Your task to perform on an android device: toggle notification dots Image 0: 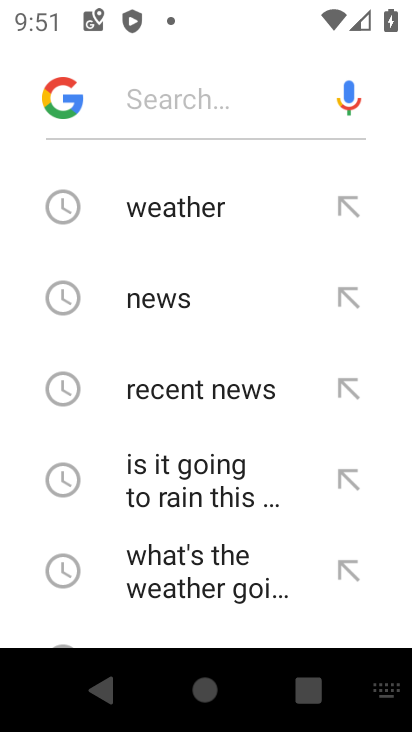
Step 0: press back button
Your task to perform on an android device: toggle notification dots Image 1: 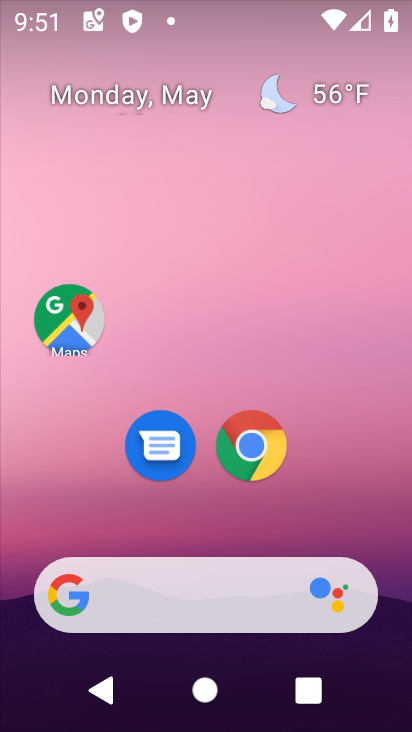
Step 1: drag from (70, 549) to (175, 85)
Your task to perform on an android device: toggle notification dots Image 2: 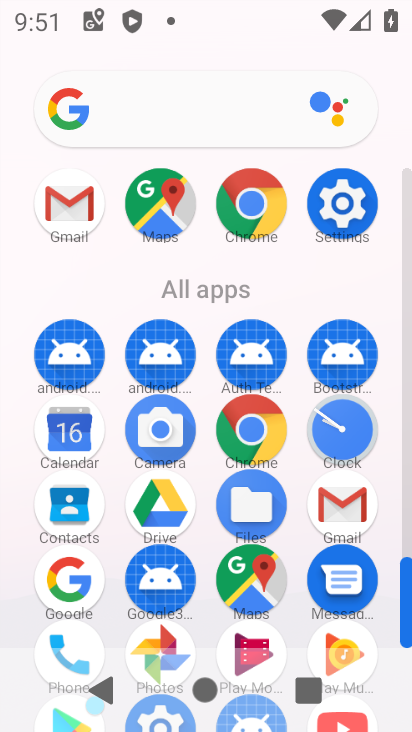
Step 2: drag from (174, 646) to (222, 431)
Your task to perform on an android device: toggle notification dots Image 3: 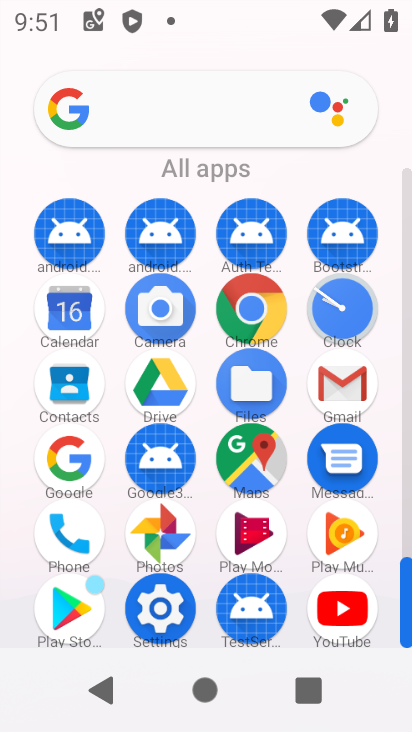
Step 3: click (170, 624)
Your task to perform on an android device: toggle notification dots Image 4: 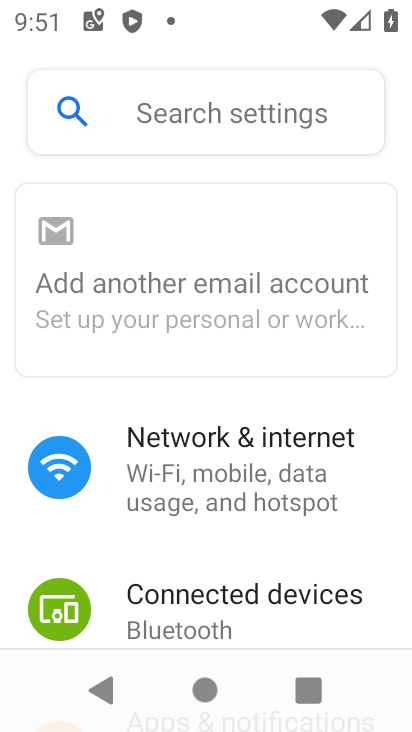
Step 4: drag from (170, 623) to (265, 245)
Your task to perform on an android device: toggle notification dots Image 5: 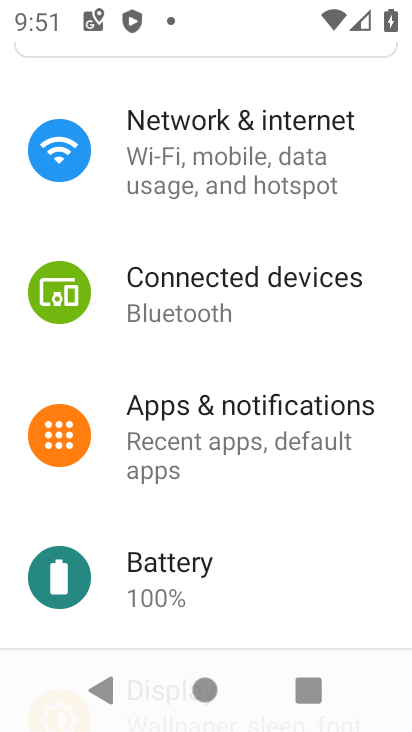
Step 5: click (268, 452)
Your task to perform on an android device: toggle notification dots Image 6: 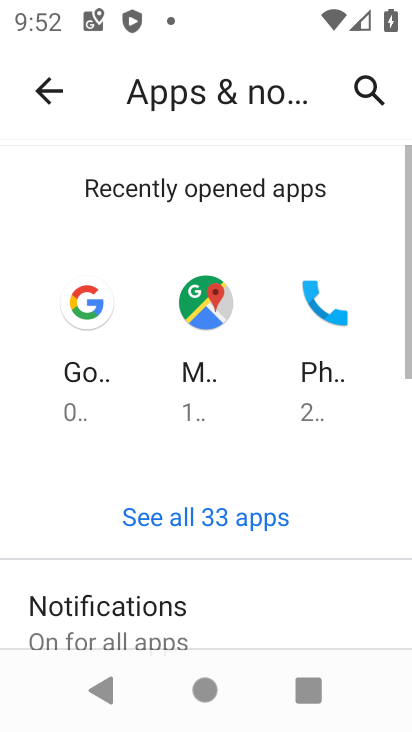
Step 6: drag from (169, 567) to (315, 92)
Your task to perform on an android device: toggle notification dots Image 7: 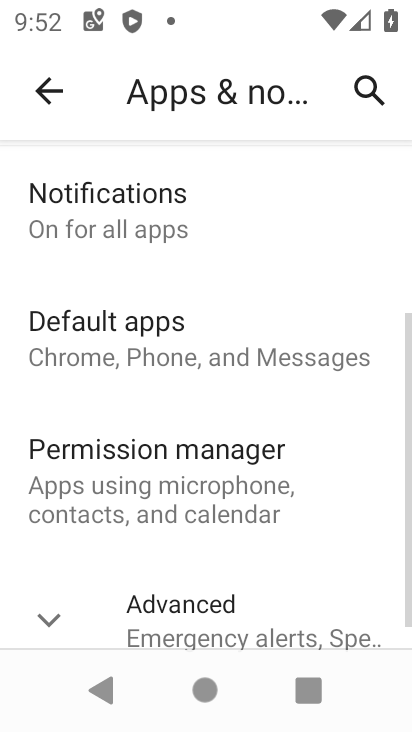
Step 7: drag from (211, 565) to (297, 322)
Your task to perform on an android device: toggle notification dots Image 8: 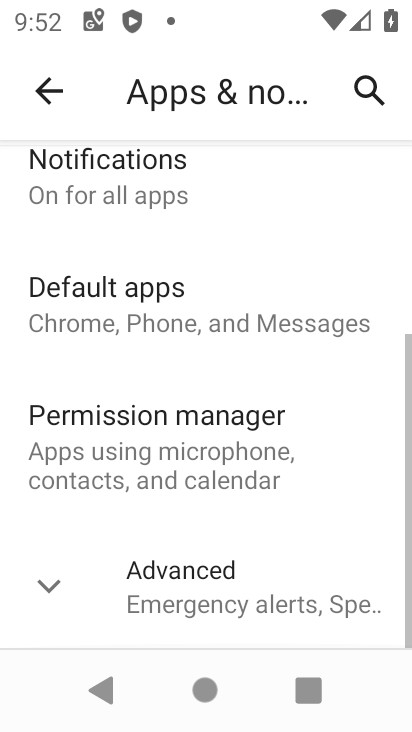
Step 8: click (257, 191)
Your task to perform on an android device: toggle notification dots Image 9: 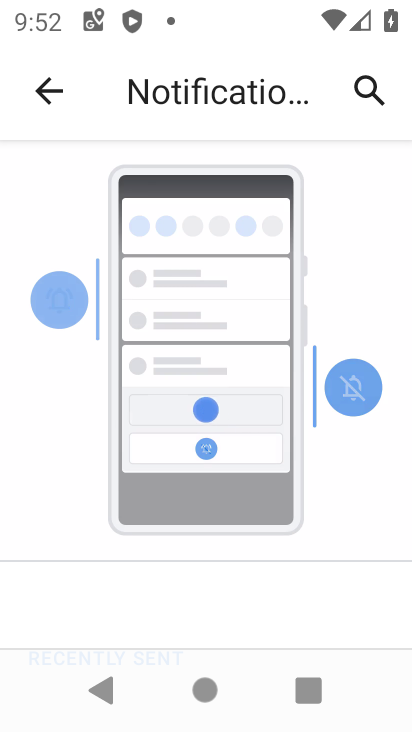
Step 9: drag from (166, 589) to (233, 155)
Your task to perform on an android device: toggle notification dots Image 10: 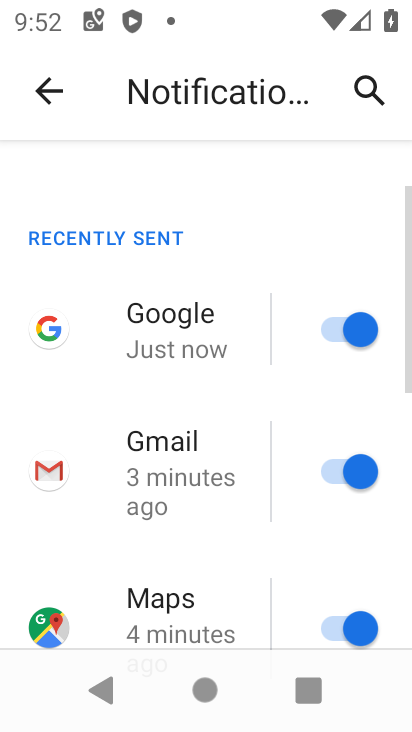
Step 10: drag from (97, 550) to (192, 188)
Your task to perform on an android device: toggle notification dots Image 11: 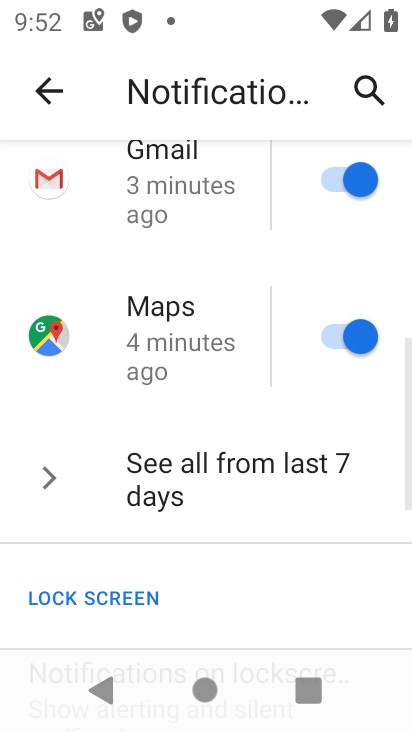
Step 11: drag from (150, 575) to (226, 225)
Your task to perform on an android device: toggle notification dots Image 12: 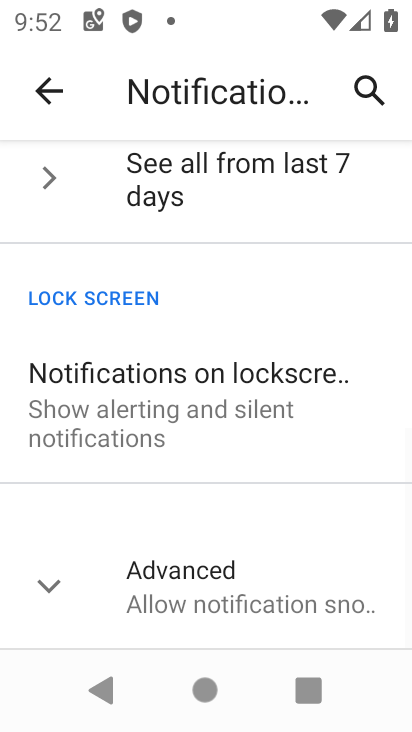
Step 12: drag from (127, 564) to (231, 316)
Your task to perform on an android device: toggle notification dots Image 13: 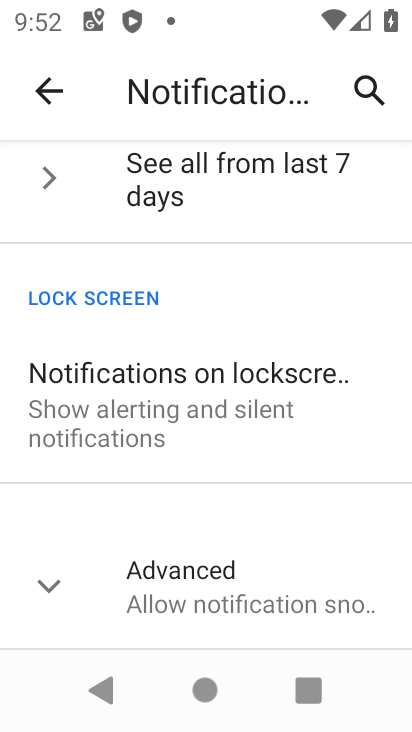
Step 13: click (209, 628)
Your task to perform on an android device: toggle notification dots Image 14: 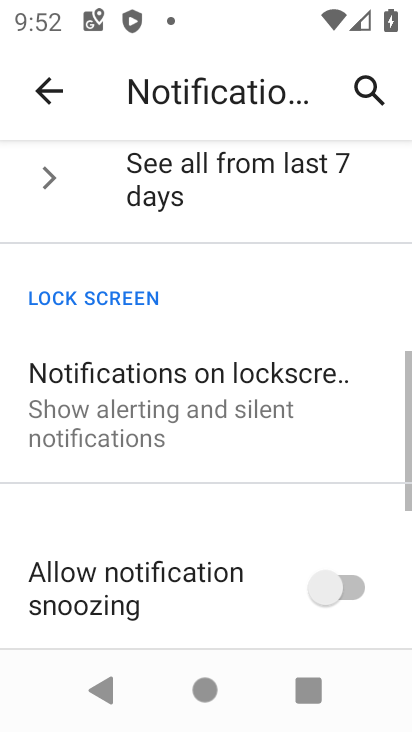
Step 14: drag from (90, 613) to (261, 231)
Your task to perform on an android device: toggle notification dots Image 15: 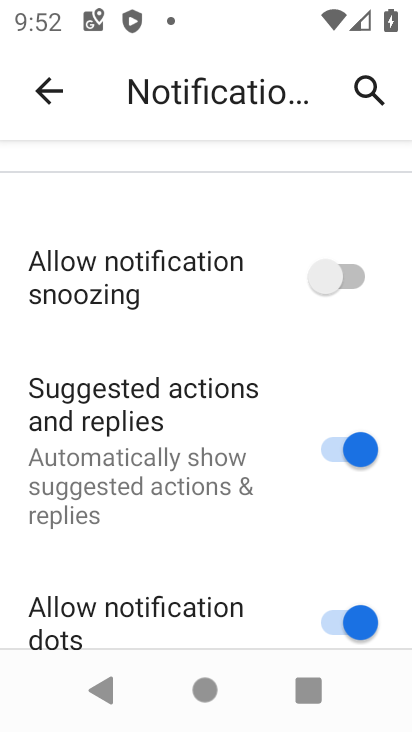
Step 15: drag from (129, 586) to (164, 383)
Your task to perform on an android device: toggle notification dots Image 16: 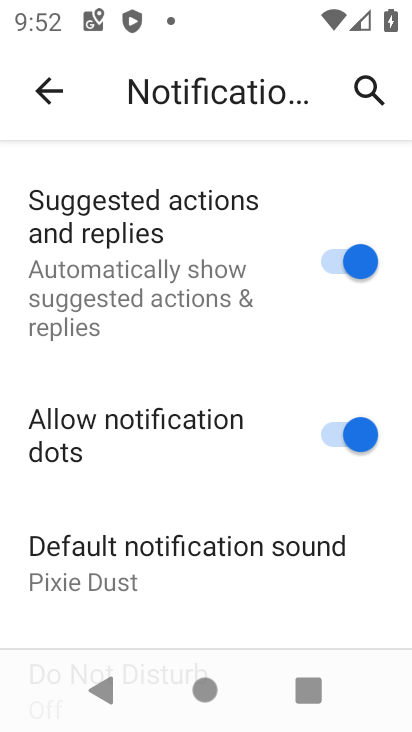
Step 16: click (329, 430)
Your task to perform on an android device: toggle notification dots Image 17: 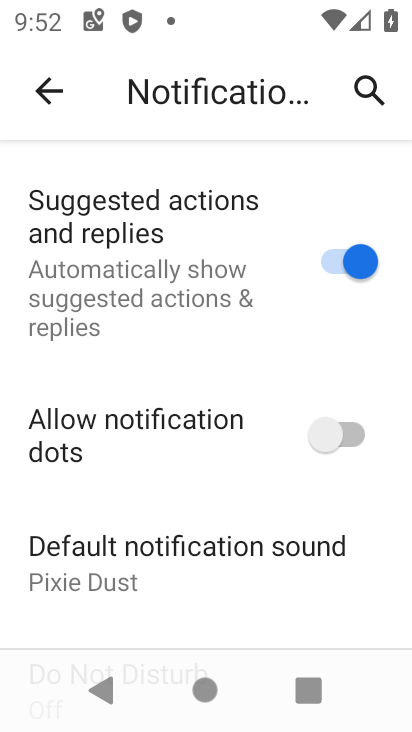
Step 17: task complete